Your task to perform on an android device: change notification settings in the gmail app Image 0: 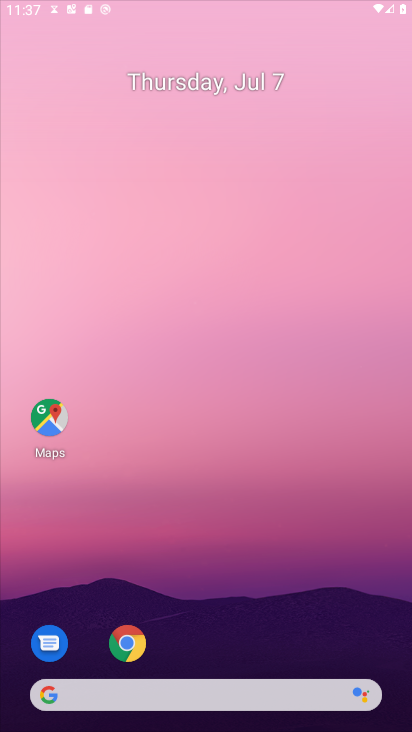
Step 0: press home button
Your task to perform on an android device: change notification settings in the gmail app Image 1: 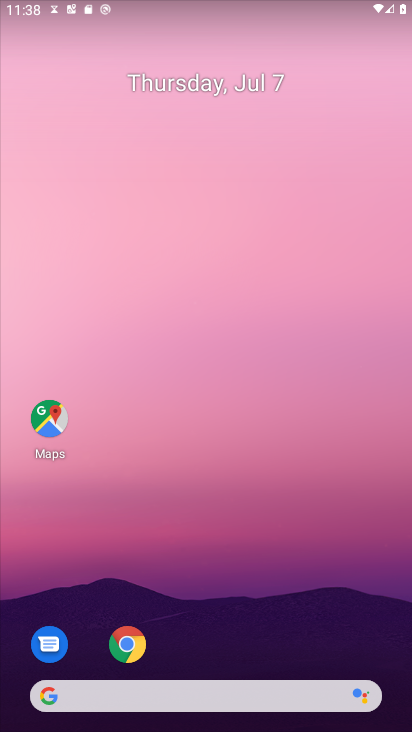
Step 1: press home button
Your task to perform on an android device: change notification settings in the gmail app Image 2: 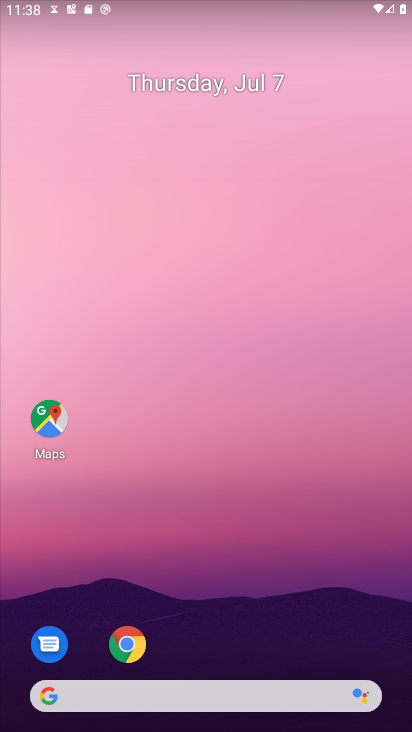
Step 2: drag from (273, 617) to (252, 136)
Your task to perform on an android device: change notification settings in the gmail app Image 3: 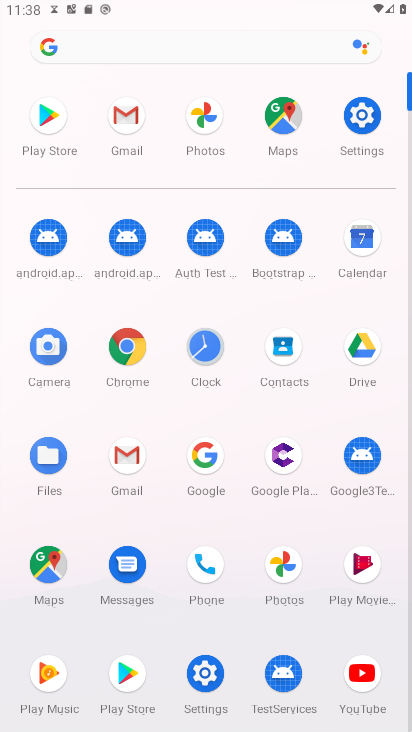
Step 3: click (368, 123)
Your task to perform on an android device: change notification settings in the gmail app Image 4: 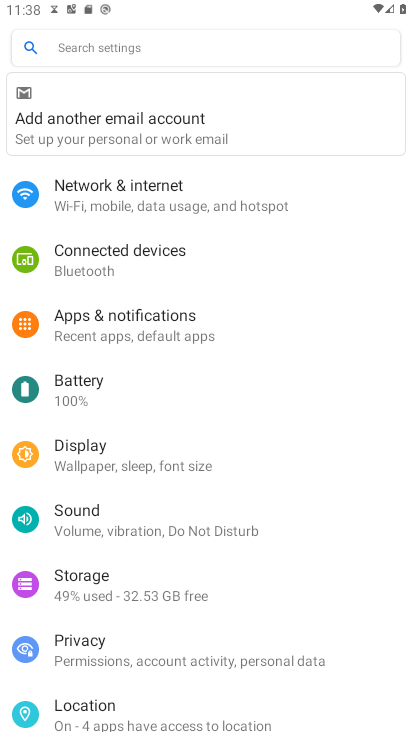
Step 4: click (134, 331)
Your task to perform on an android device: change notification settings in the gmail app Image 5: 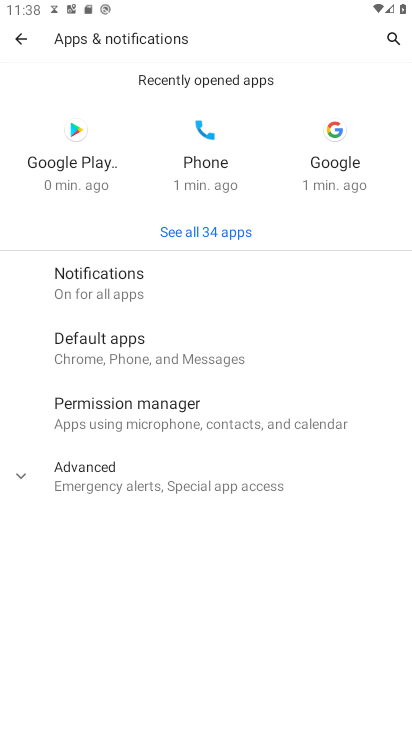
Step 5: task complete